Your task to perform on an android device: Go to Google maps Image 0: 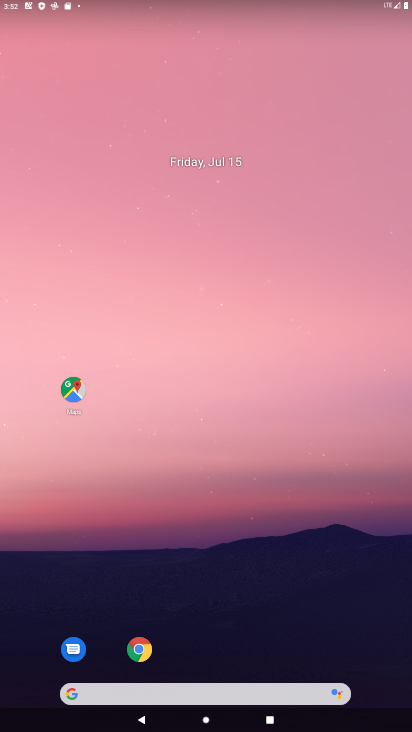
Step 0: drag from (283, 451) to (246, 91)
Your task to perform on an android device: Go to Google maps Image 1: 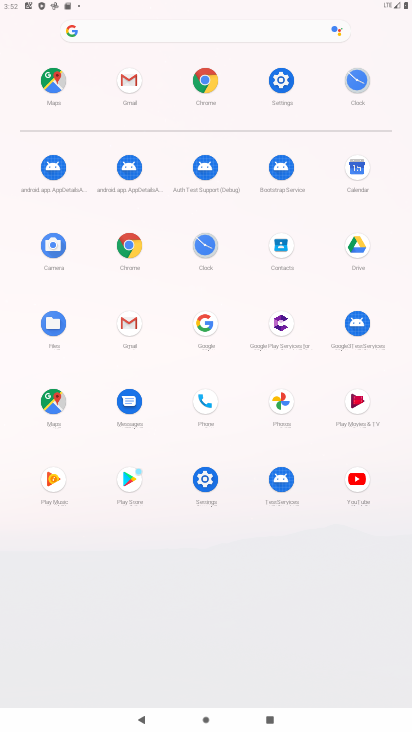
Step 1: click (55, 80)
Your task to perform on an android device: Go to Google maps Image 2: 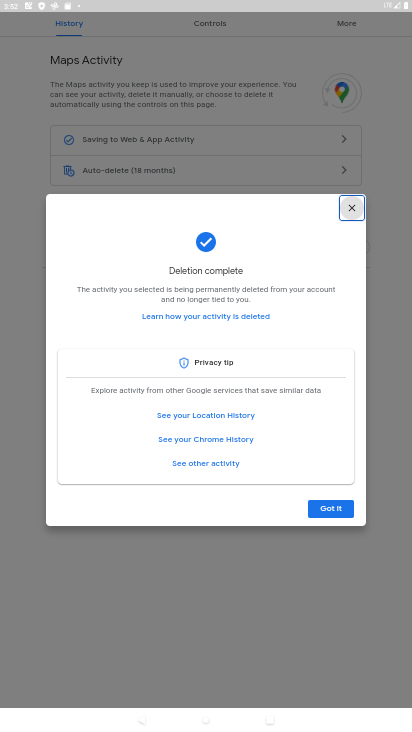
Step 2: task complete